Your task to perform on an android device: Go to wifi settings Image 0: 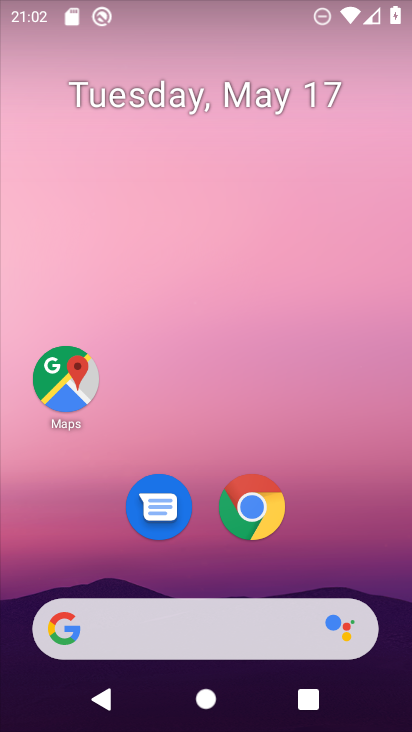
Step 0: press home button
Your task to perform on an android device: Go to wifi settings Image 1: 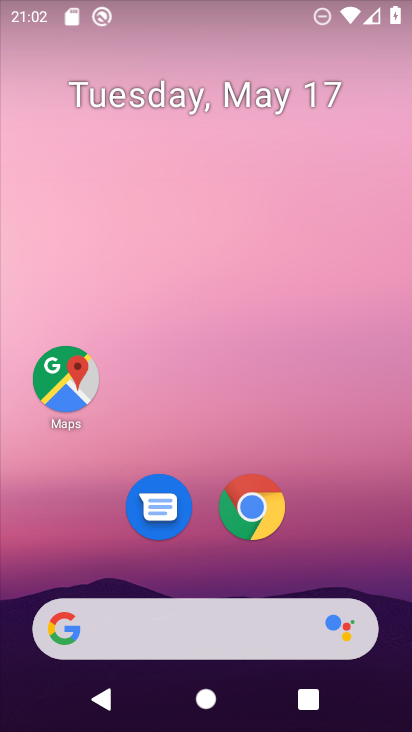
Step 1: drag from (332, 549) to (302, 3)
Your task to perform on an android device: Go to wifi settings Image 2: 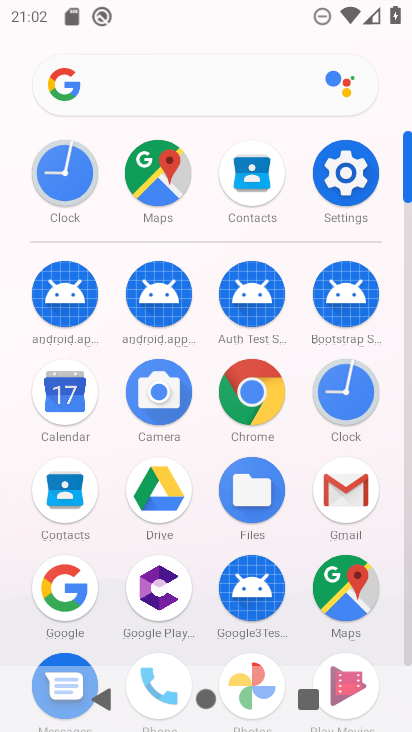
Step 2: click (347, 173)
Your task to perform on an android device: Go to wifi settings Image 3: 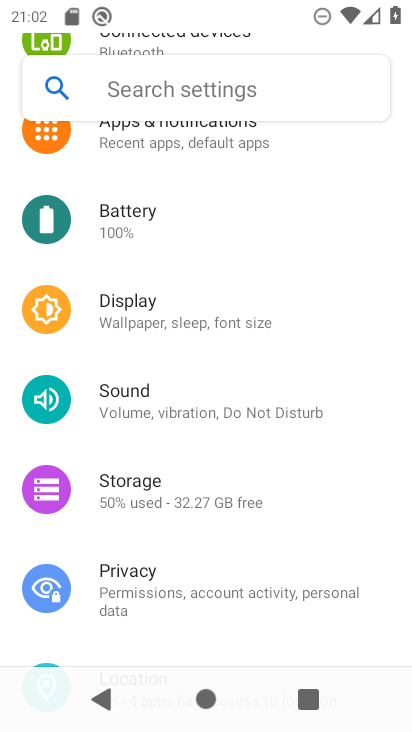
Step 3: drag from (347, 173) to (400, 602)
Your task to perform on an android device: Go to wifi settings Image 4: 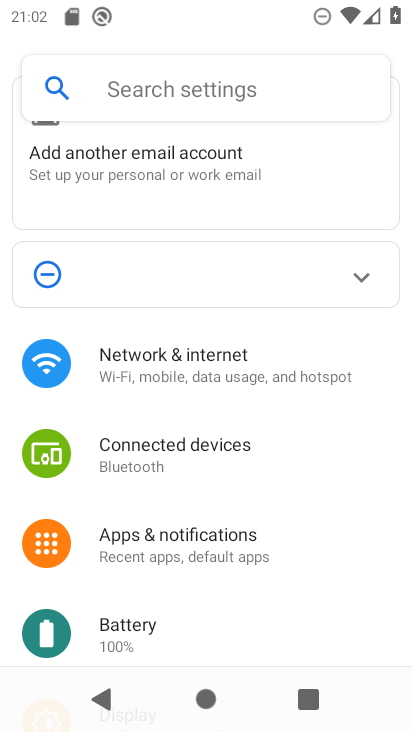
Step 4: click (173, 370)
Your task to perform on an android device: Go to wifi settings Image 5: 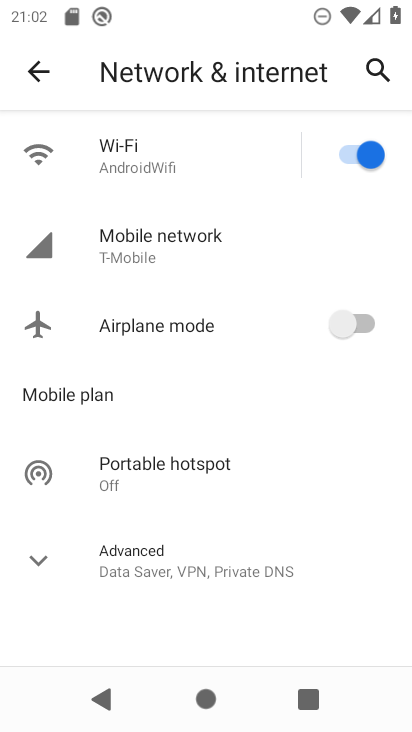
Step 5: click (100, 153)
Your task to perform on an android device: Go to wifi settings Image 6: 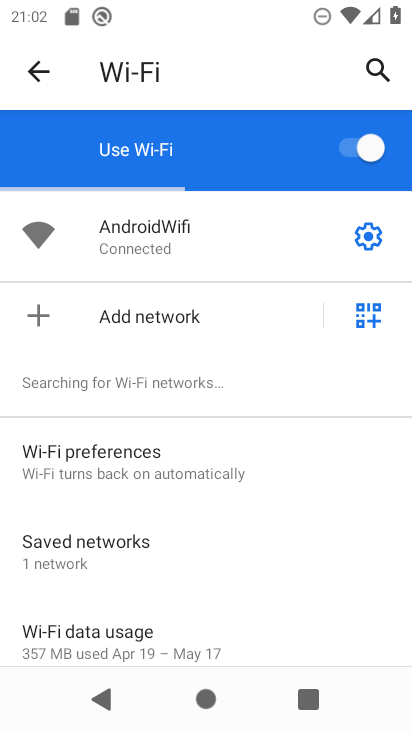
Step 6: task complete